Your task to perform on an android device: install app "Move to iOS" Image 0: 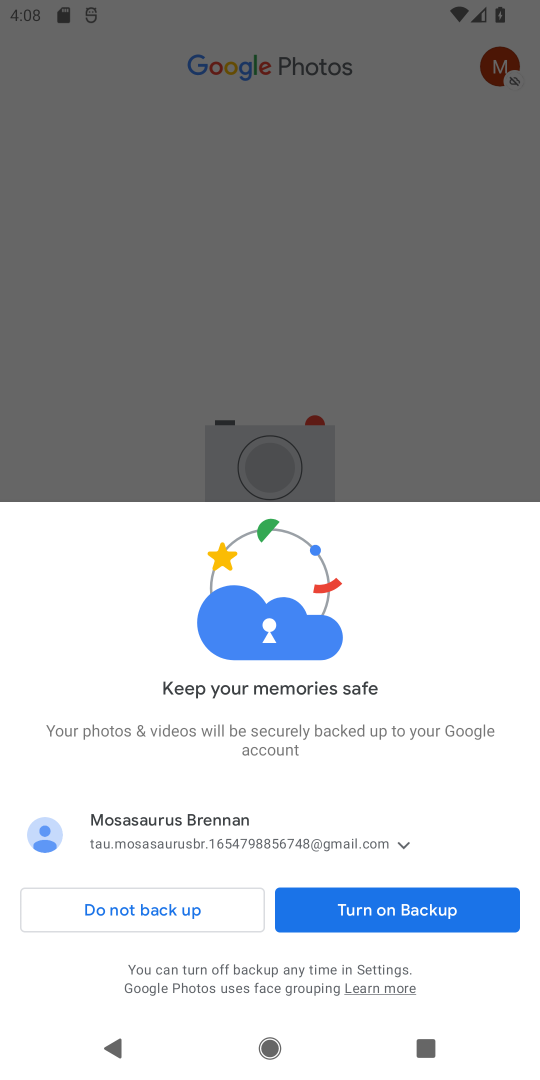
Step 0: press home button
Your task to perform on an android device: install app "Move to iOS" Image 1: 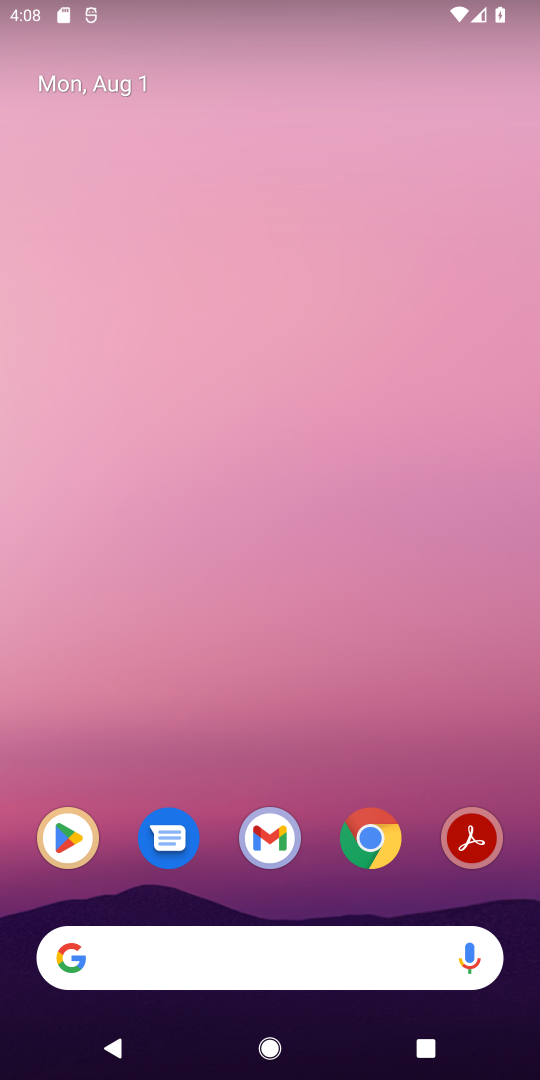
Step 1: click (74, 832)
Your task to perform on an android device: install app "Move to iOS" Image 2: 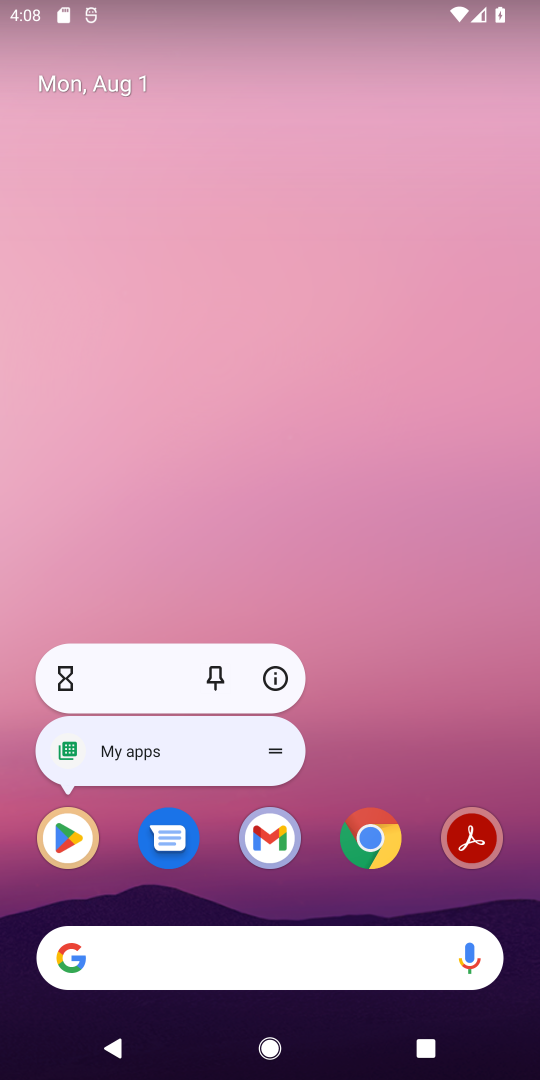
Step 2: click (48, 841)
Your task to perform on an android device: install app "Move to iOS" Image 3: 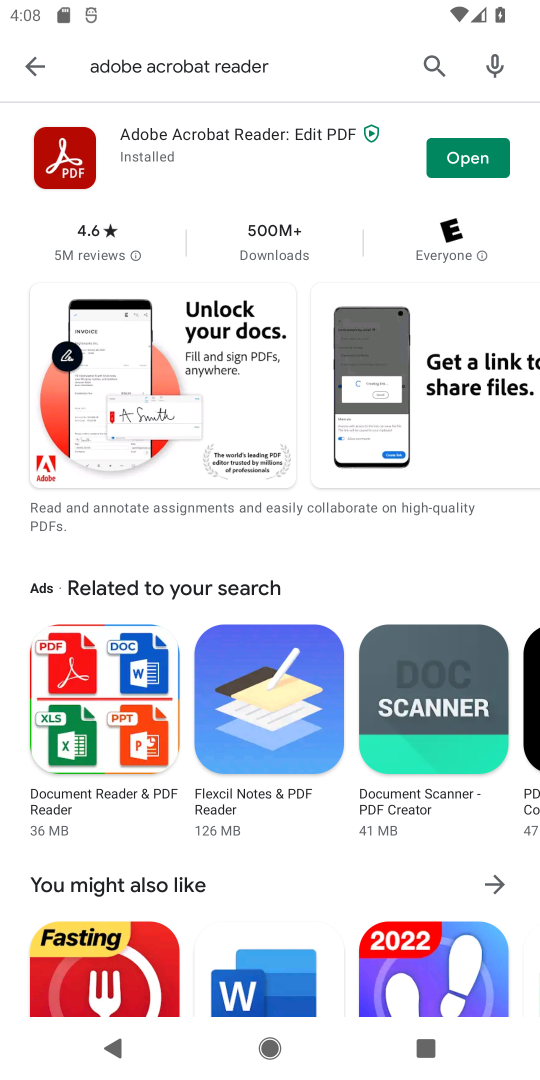
Step 3: click (422, 43)
Your task to perform on an android device: install app "Move to iOS" Image 4: 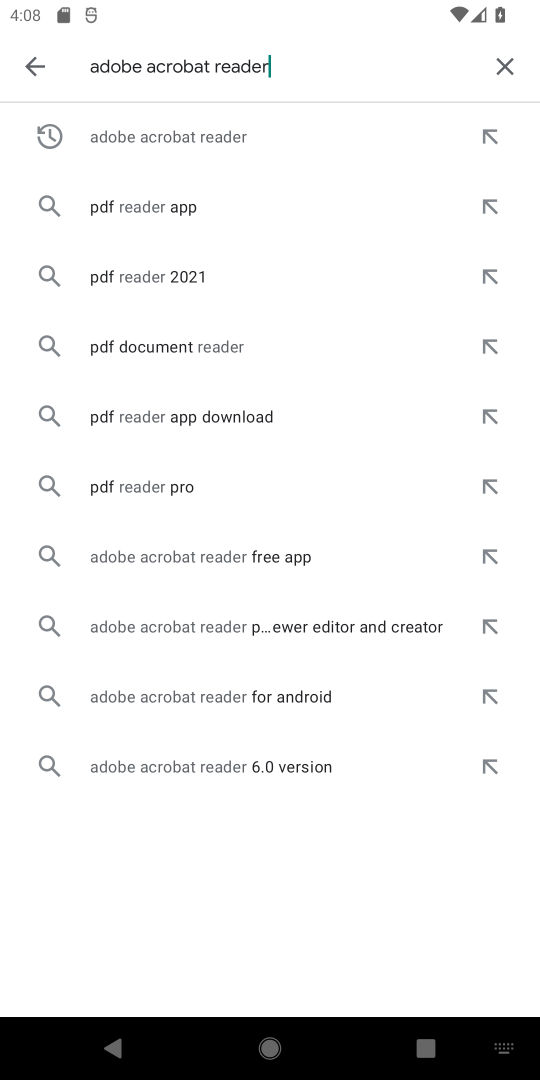
Step 4: click (520, 61)
Your task to perform on an android device: install app "Move to iOS" Image 5: 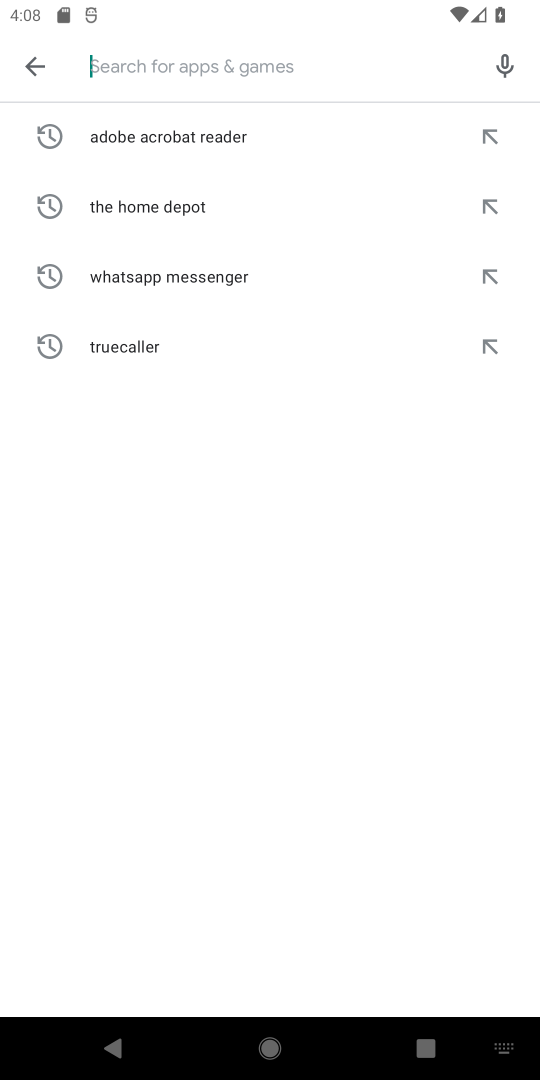
Step 5: type "Move to iOS"
Your task to perform on an android device: install app "Move to iOS" Image 6: 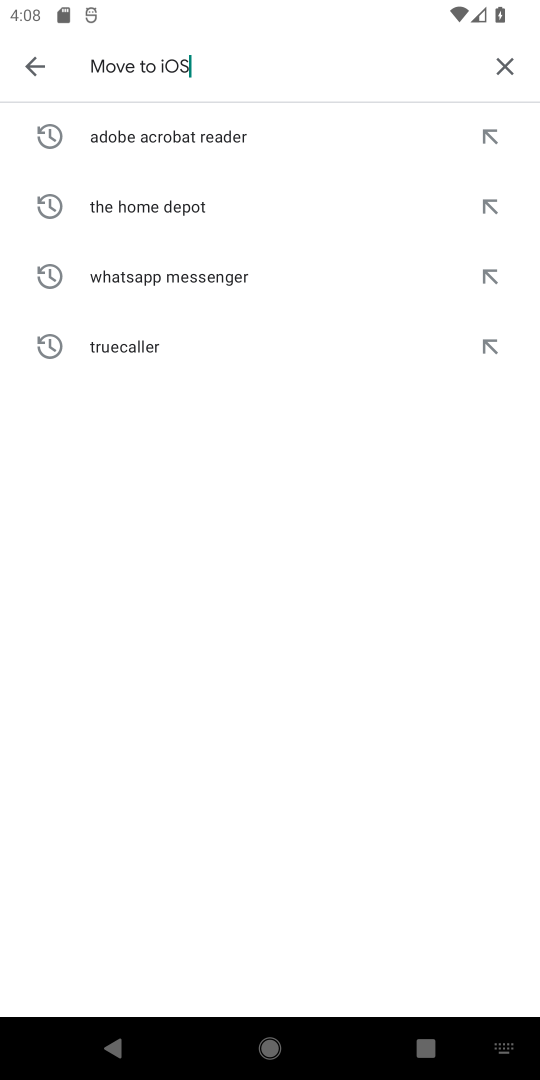
Step 6: type ""
Your task to perform on an android device: install app "Move to iOS" Image 7: 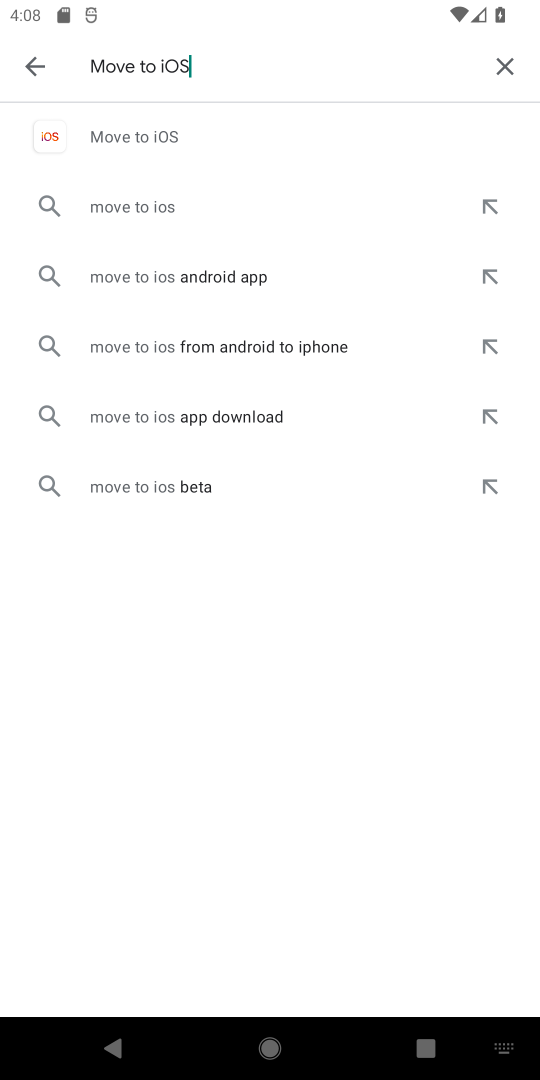
Step 7: click (163, 122)
Your task to perform on an android device: install app "Move to iOS" Image 8: 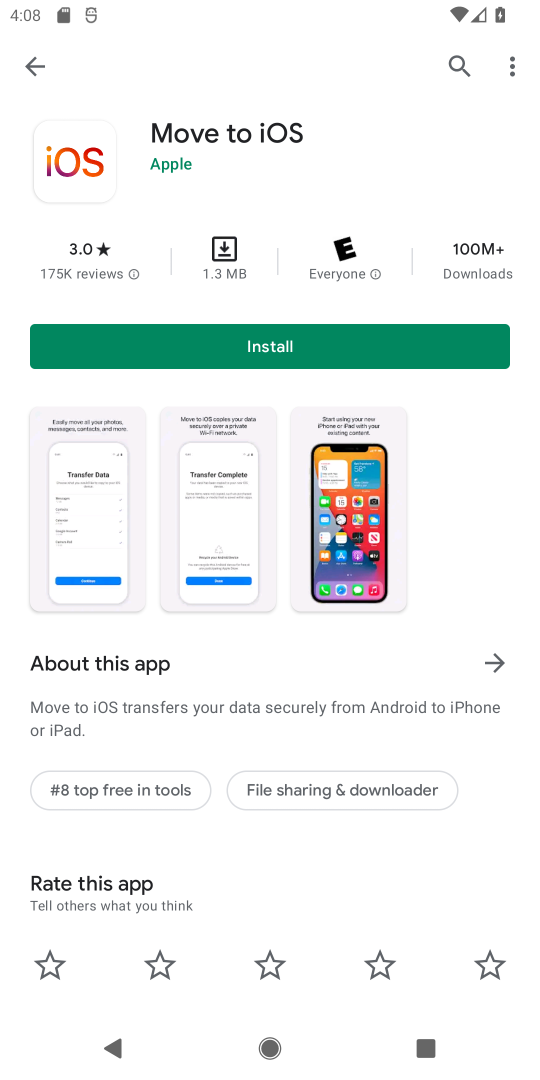
Step 8: click (204, 343)
Your task to perform on an android device: install app "Move to iOS" Image 9: 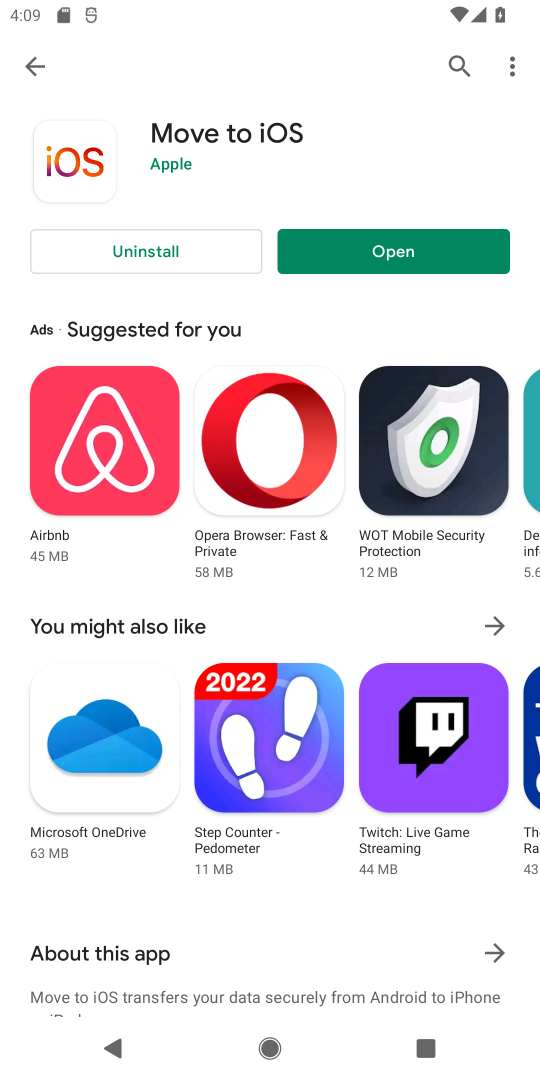
Step 9: task complete